Your task to perform on an android device: Go to notification settings Image 0: 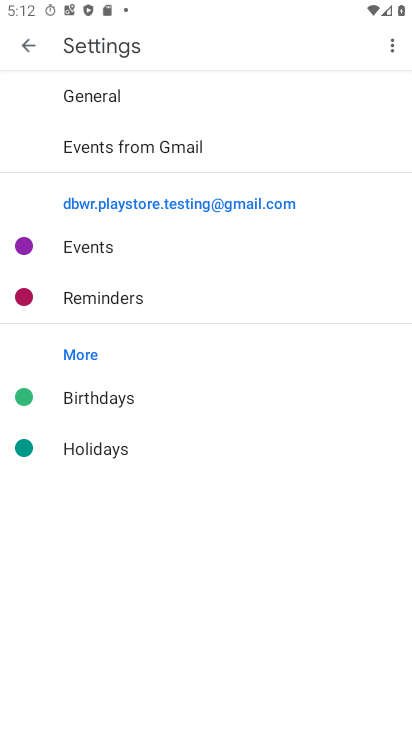
Step 0: press home button
Your task to perform on an android device: Go to notification settings Image 1: 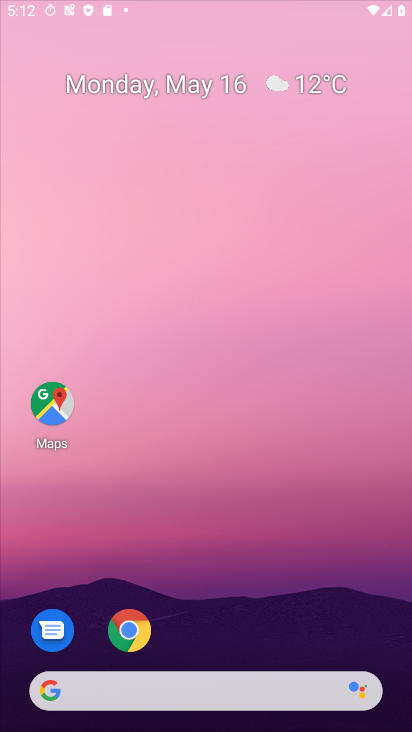
Step 1: drag from (234, 572) to (247, 32)
Your task to perform on an android device: Go to notification settings Image 2: 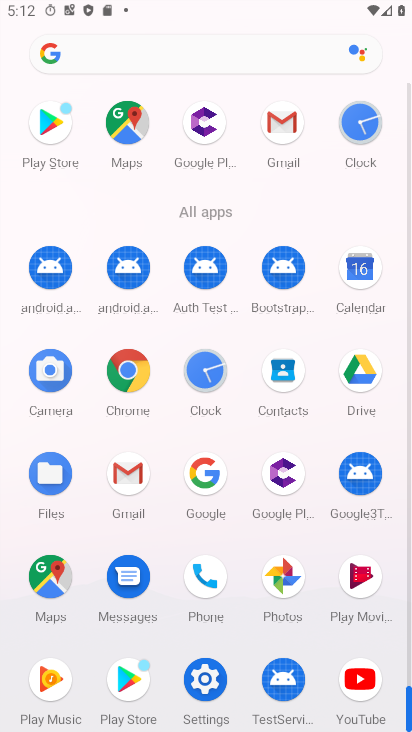
Step 2: click (203, 674)
Your task to perform on an android device: Go to notification settings Image 3: 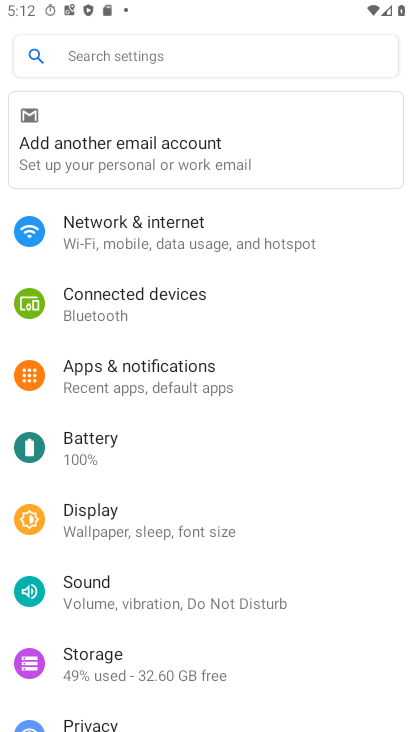
Step 3: click (200, 378)
Your task to perform on an android device: Go to notification settings Image 4: 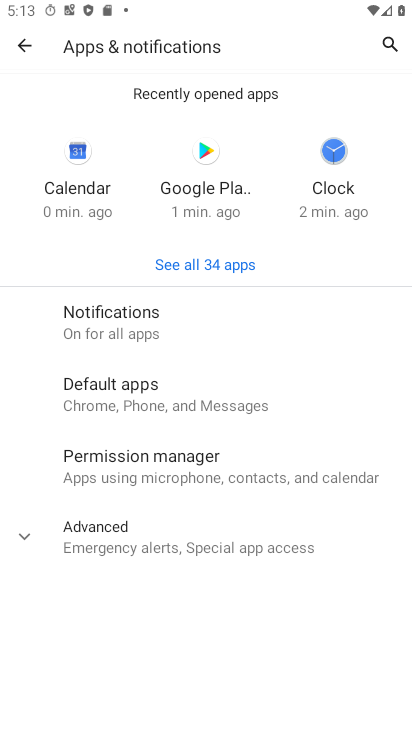
Step 4: click (188, 326)
Your task to perform on an android device: Go to notification settings Image 5: 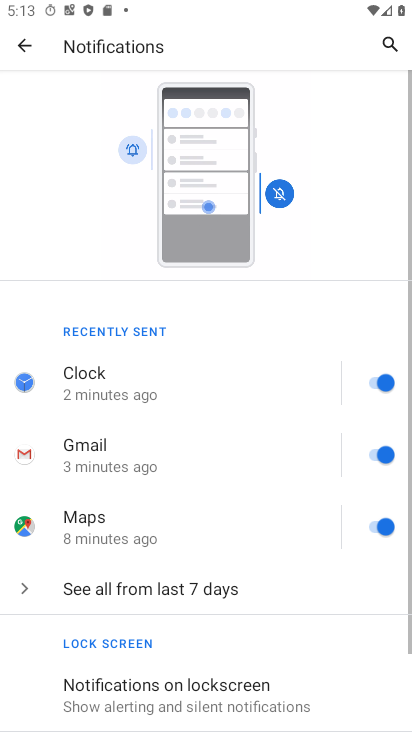
Step 5: task complete